Your task to perform on an android device: turn off data saver in the chrome app Image 0: 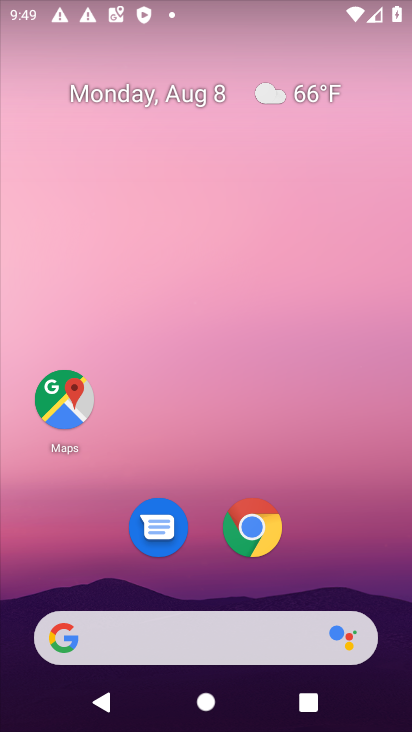
Step 0: click (255, 517)
Your task to perform on an android device: turn off data saver in the chrome app Image 1: 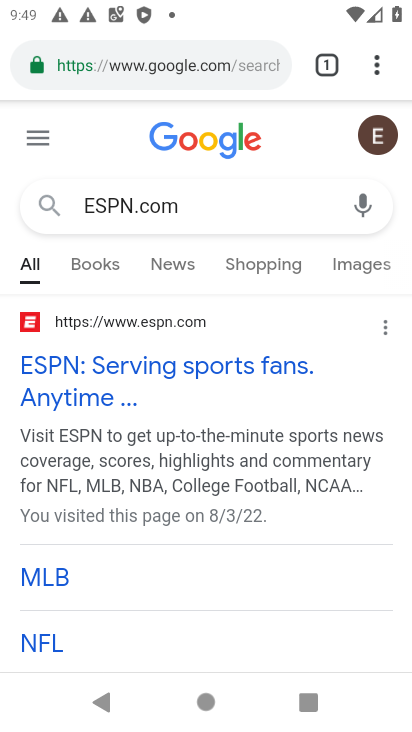
Step 1: click (373, 63)
Your task to perform on an android device: turn off data saver in the chrome app Image 2: 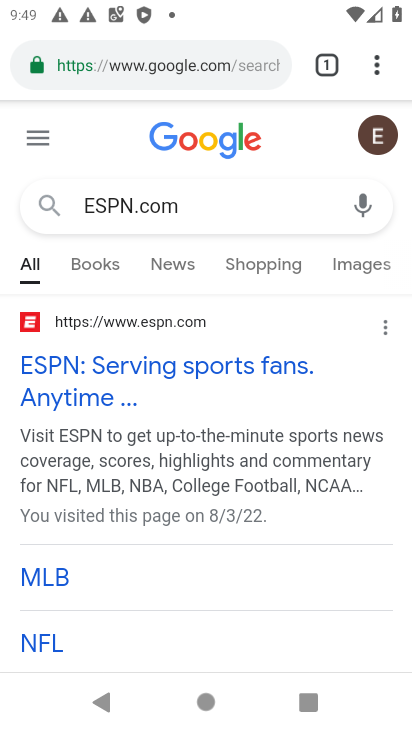
Step 2: click (373, 63)
Your task to perform on an android device: turn off data saver in the chrome app Image 3: 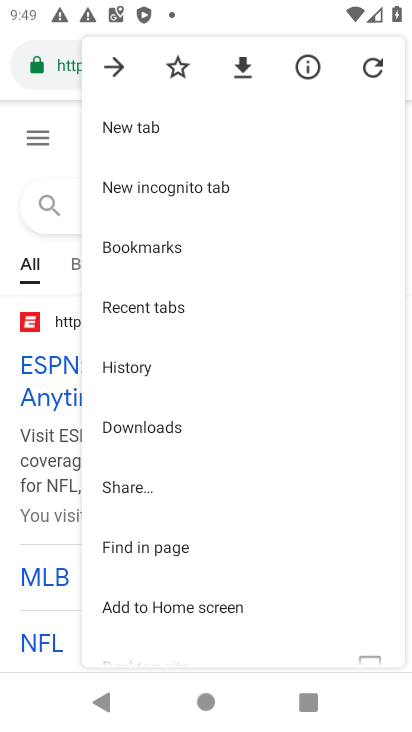
Step 3: drag from (303, 605) to (312, 319)
Your task to perform on an android device: turn off data saver in the chrome app Image 4: 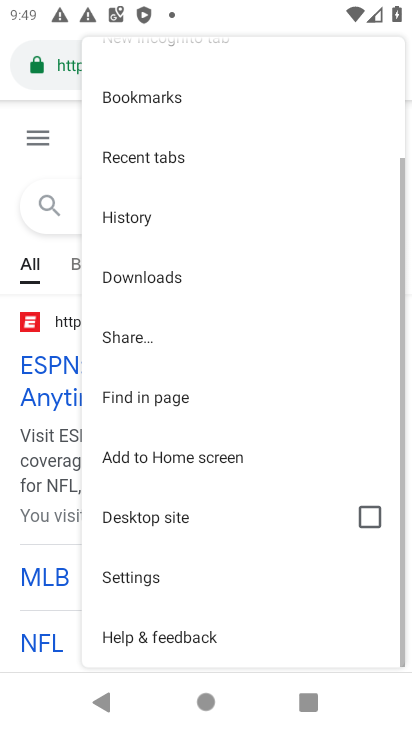
Step 4: click (149, 575)
Your task to perform on an android device: turn off data saver in the chrome app Image 5: 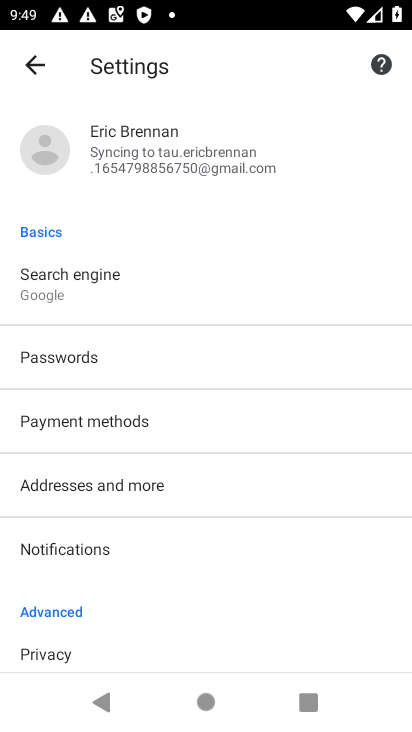
Step 5: drag from (282, 621) to (309, 327)
Your task to perform on an android device: turn off data saver in the chrome app Image 6: 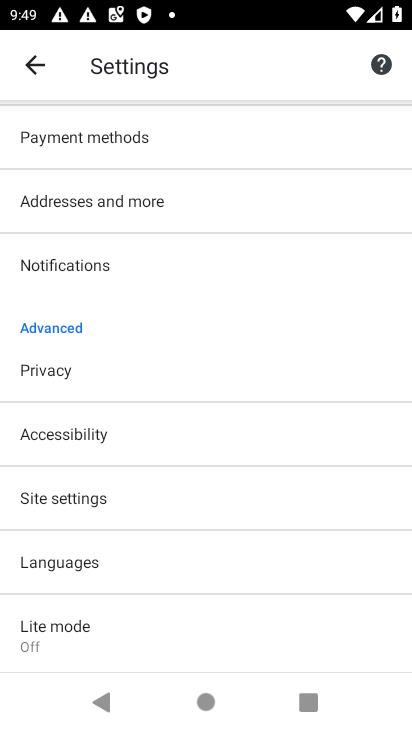
Step 6: click (46, 625)
Your task to perform on an android device: turn off data saver in the chrome app Image 7: 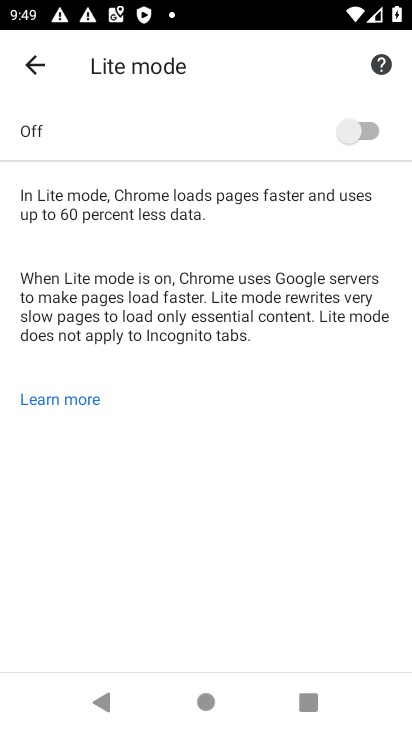
Step 7: task complete